Your task to perform on an android device: Clear the cart on costco. Search for "dell xps" on costco, select the first entry, add it to the cart, then select checkout. Image 0: 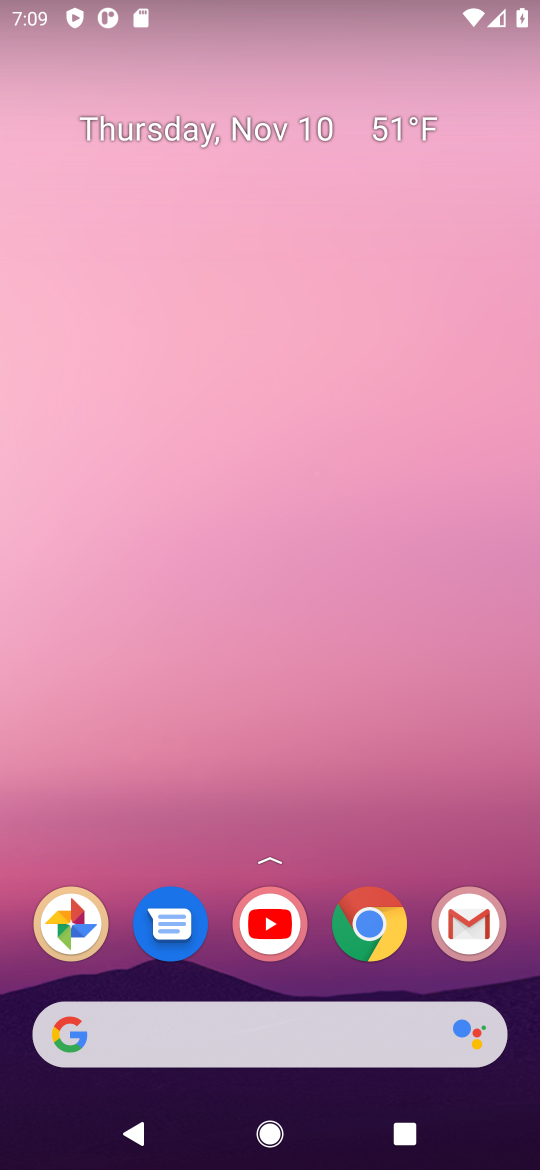
Step 0: click (374, 924)
Your task to perform on an android device: Clear the cart on costco. Search for "dell xps" on costco, select the first entry, add it to the cart, then select checkout. Image 1: 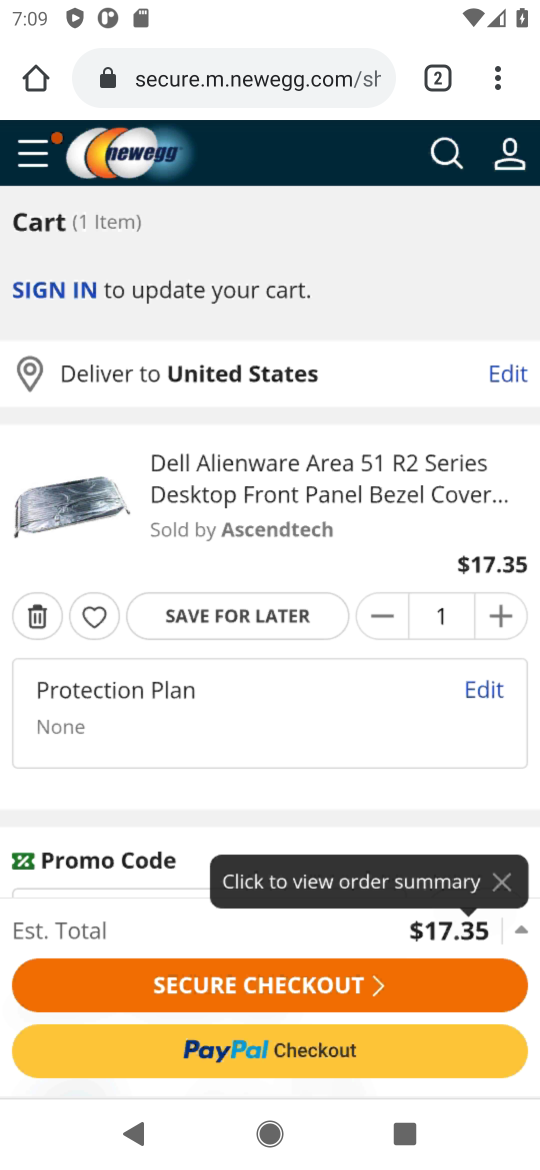
Step 1: click (220, 75)
Your task to perform on an android device: Clear the cart on costco. Search for "dell xps" on costco, select the first entry, add it to the cart, then select checkout. Image 2: 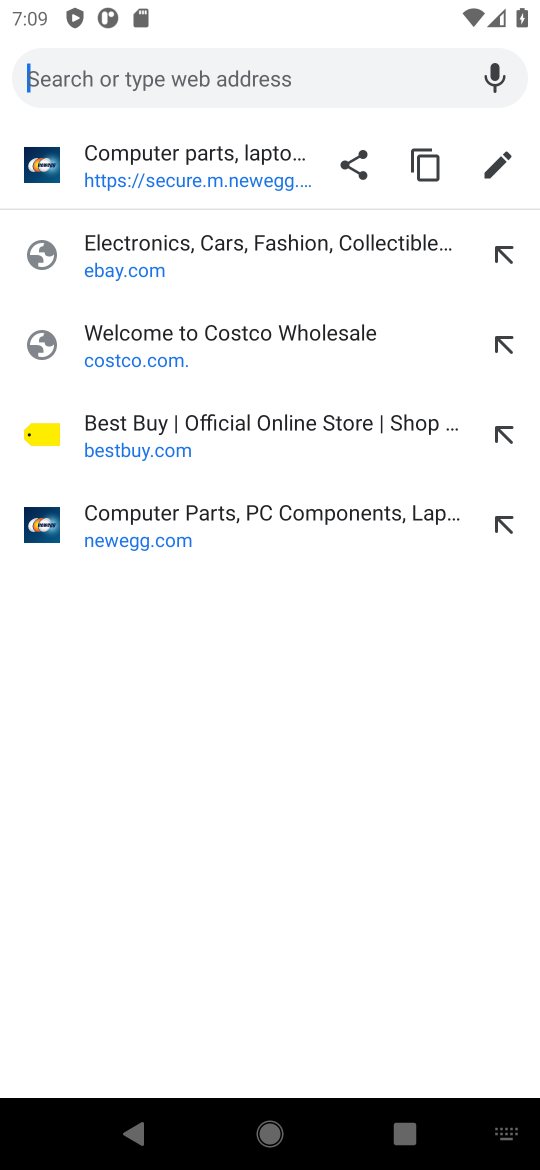
Step 2: click (121, 362)
Your task to perform on an android device: Clear the cart on costco. Search for "dell xps" on costco, select the first entry, add it to the cart, then select checkout. Image 3: 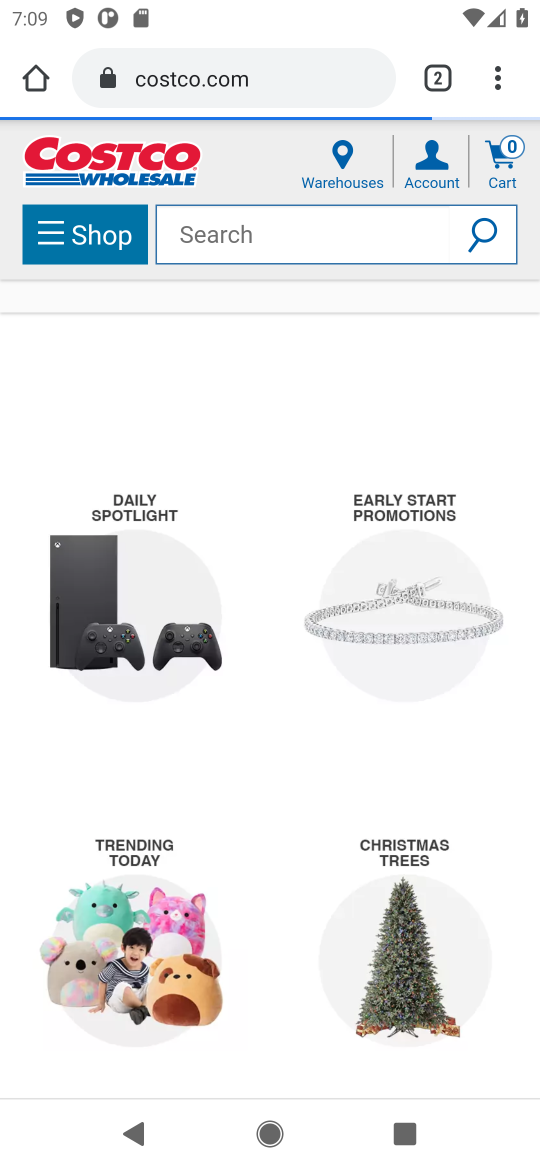
Step 3: click (506, 165)
Your task to perform on an android device: Clear the cart on costco. Search for "dell xps" on costco, select the first entry, add it to the cart, then select checkout. Image 4: 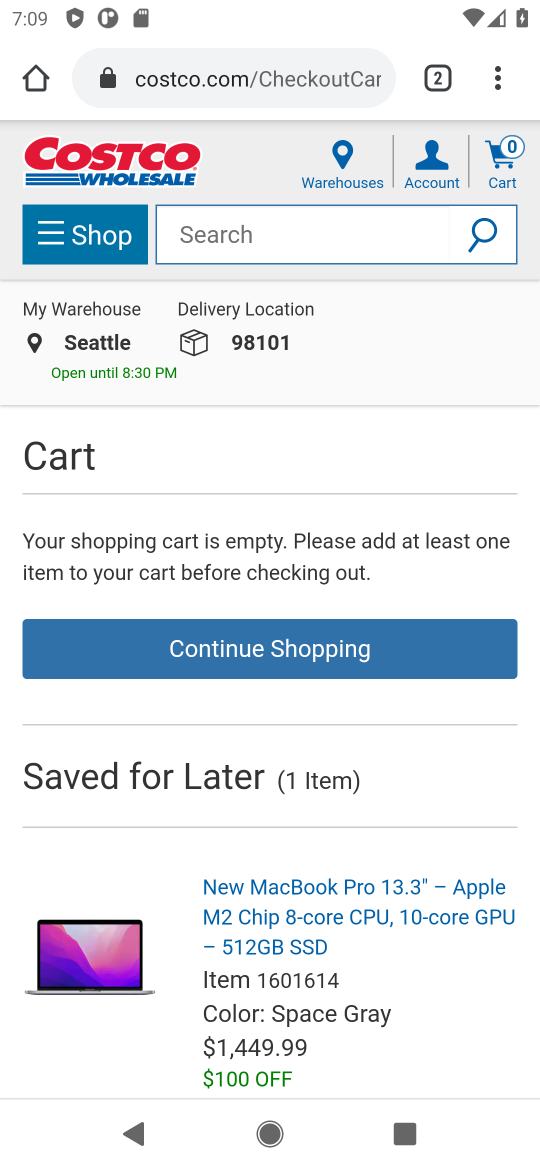
Step 4: click (394, 233)
Your task to perform on an android device: Clear the cart on costco. Search for "dell xps" on costco, select the first entry, add it to the cart, then select checkout. Image 5: 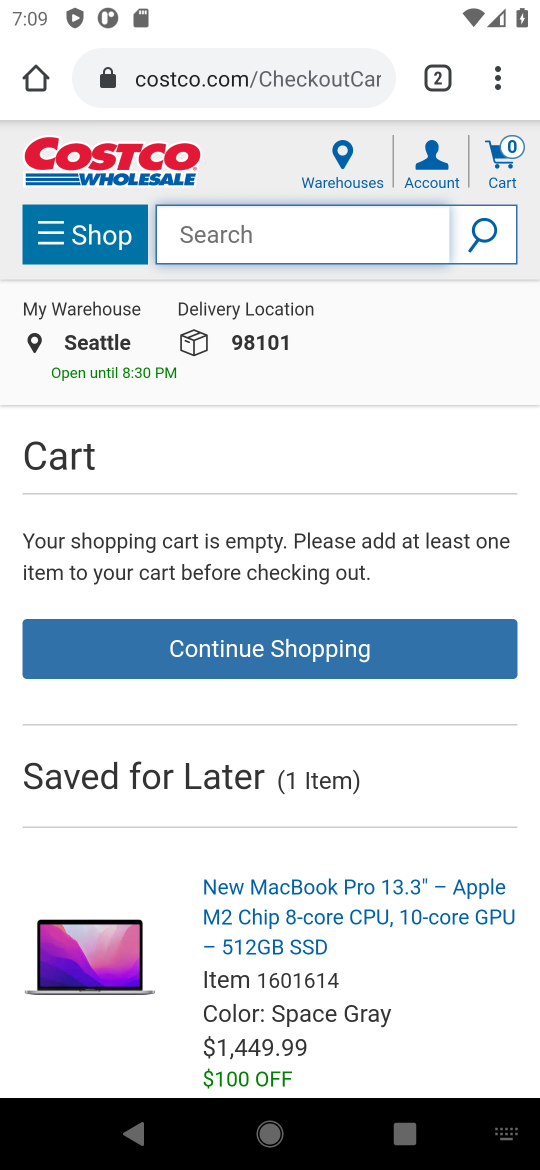
Step 5: type "dell xps"
Your task to perform on an android device: Clear the cart on costco. Search for "dell xps" on costco, select the first entry, add it to the cart, then select checkout. Image 6: 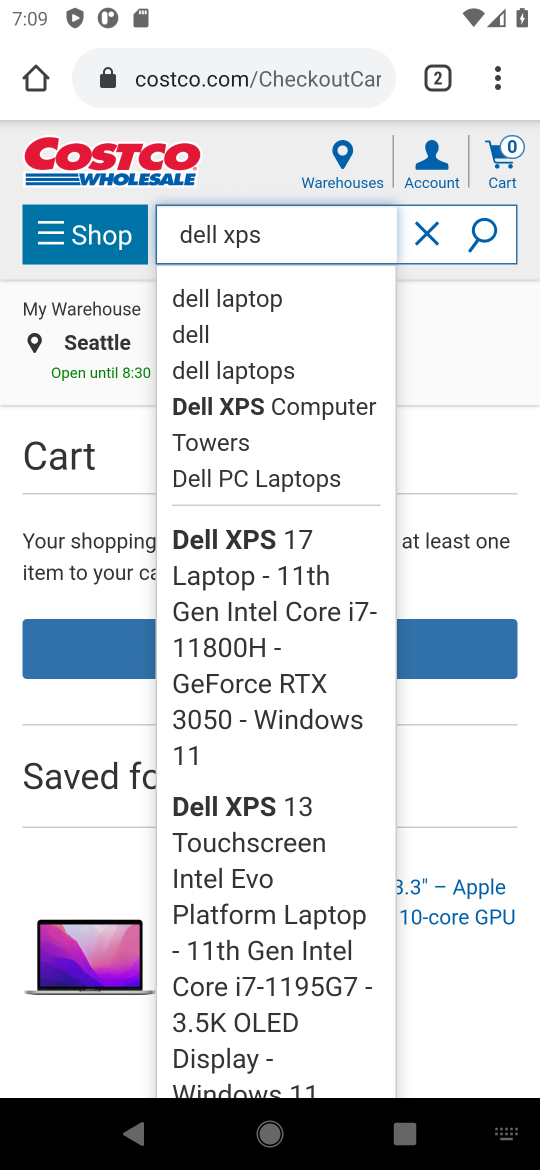
Step 6: click (493, 236)
Your task to perform on an android device: Clear the cart on costco. Search for "dell xps" on costco, select the first entry, add it to the cart, then select checkout. Image 7: 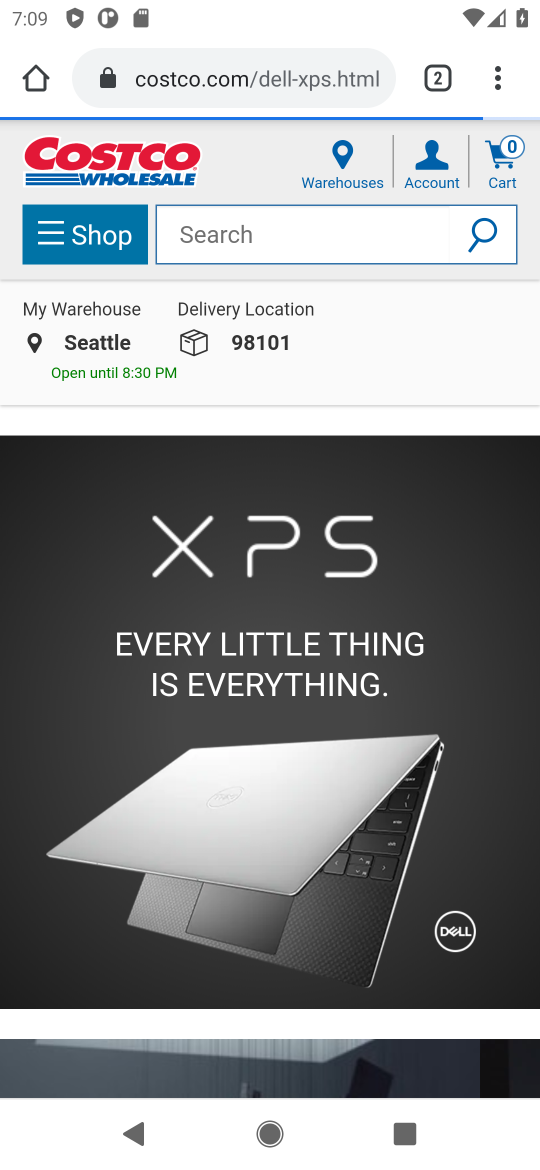
Step 7: task complete